Your task to perform on an android device: turn on the 24-hour format for clock Image 0: 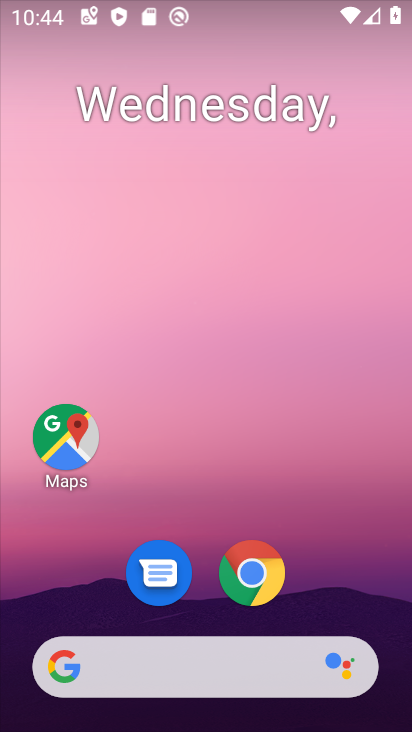
Step 0: drag from (252, 627) to (206, 297)
Your task to perform on an android device: turn on the 24-hour format for clock Image 1: 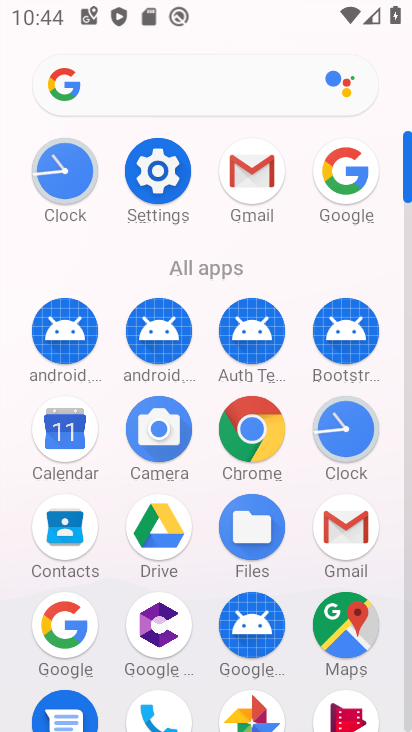
Step 1: click (339, 430)
Your task to perform on an android device: turn on the 24-hour format for clock Image 2: 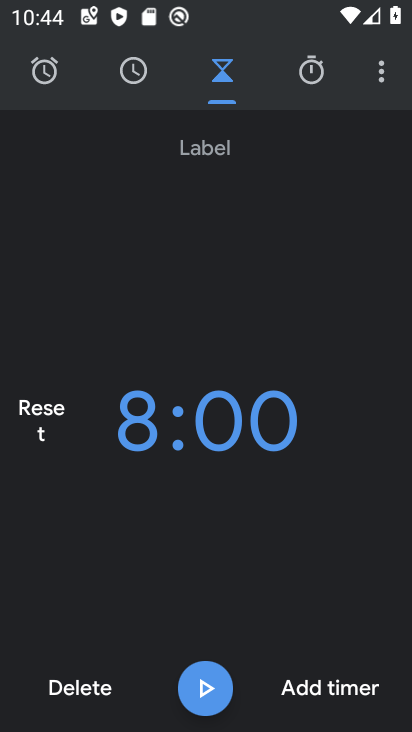
Step 2: click (390, 67)
Your task to perform on an android device: turn on the 24-hour format for clock Image 3: 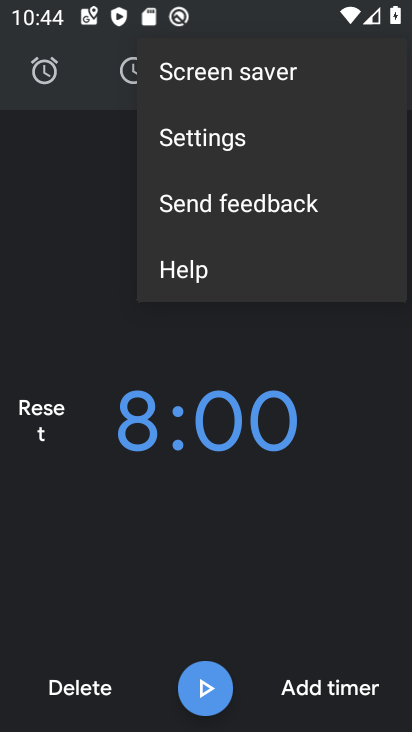
Step 3: click (204, 135)
Your task to perform on an android device: turn on the 24-hour format for clock Image 4: 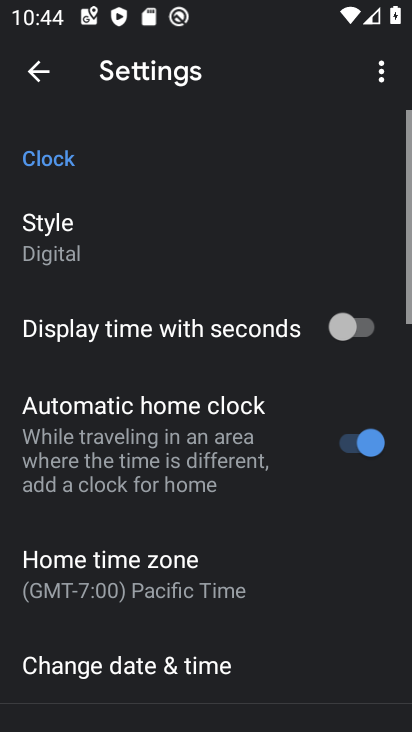
Step 4: drag from (230, 643) to (192, 282)
Your task to perform on an android device: turn on the 24-hour format for clock Image 5: 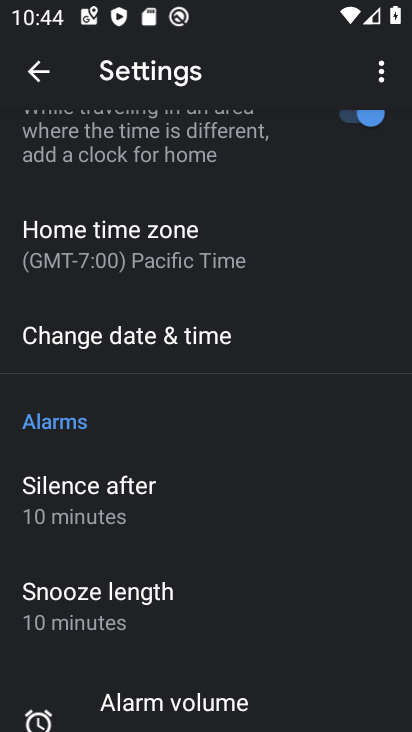
Step 5: drag from (235, 685) to (240, 348)
Your task to perform on an android device: turn on the 24-hour format for clock Image 6: 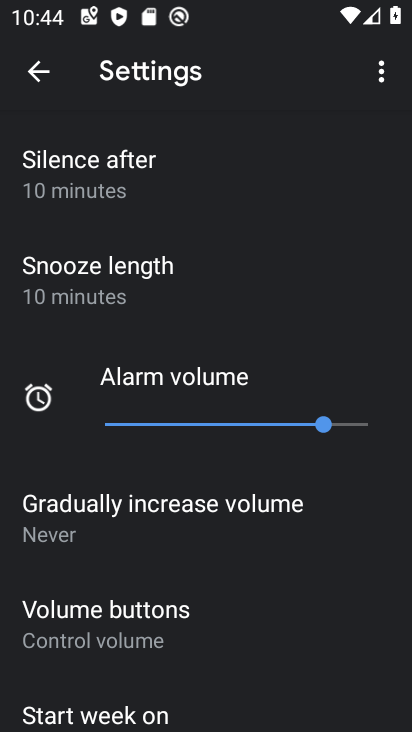
Step 6: drag from (210, 695) to (210, 297)
Your task to perform on an android device: turn on the 24-hour format for clock Image 7: 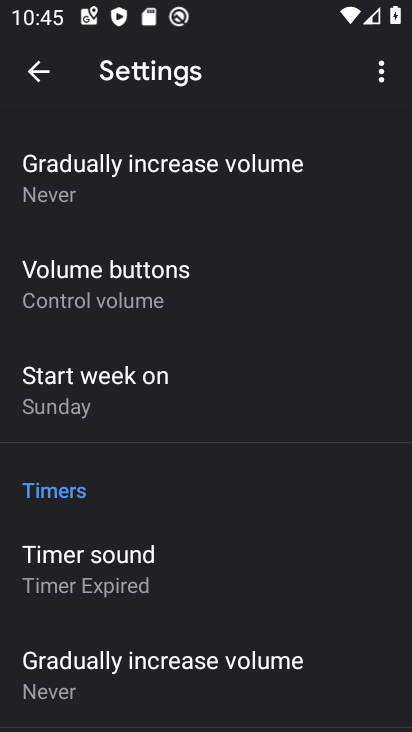
Step 7: drag from (199, 685) to (206, 327)
Your task to perform on an android device: turn on the 24-hour format for clock Image 8: 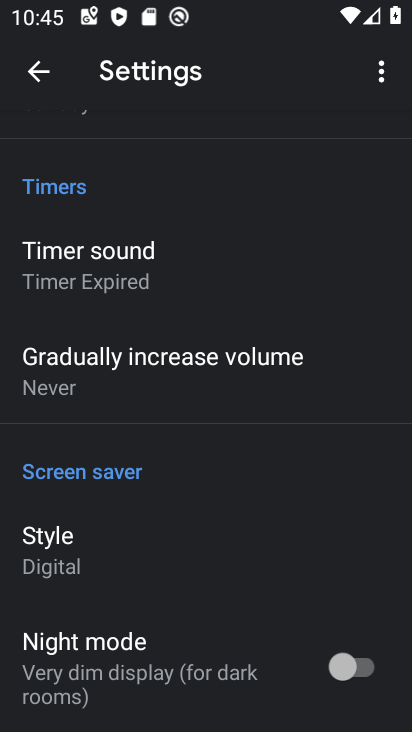
Step 8: drag from (215, 702) to (213, 362)
Your task to perform on an android device: turn on the 24-hour format for clock Image 9: 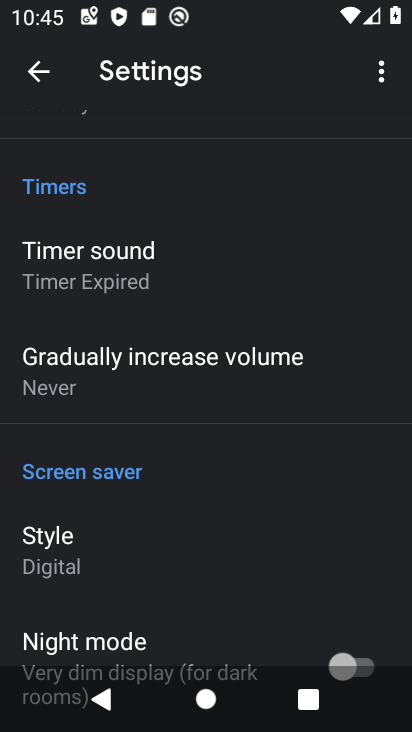
Step 9: drag from (210, 613) to (210, 314)
Your task to perform on an android device: turn on the 24-hour format for clock Image 10: 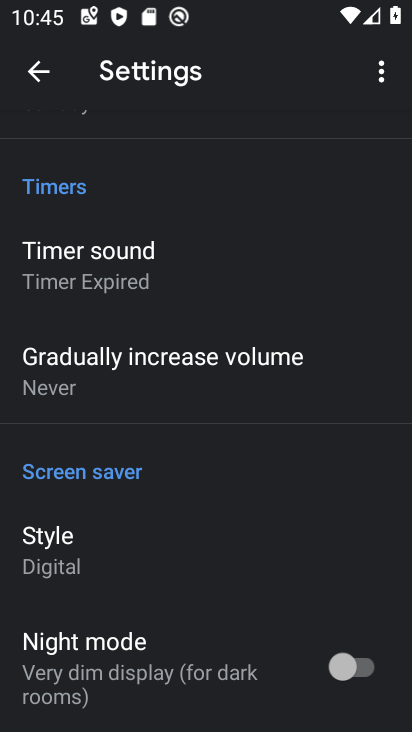
Step 10: drag from (210, 291) to (223, 578)
Your task to perform on an android device: turn on the 24-hour format for clock Image 11: 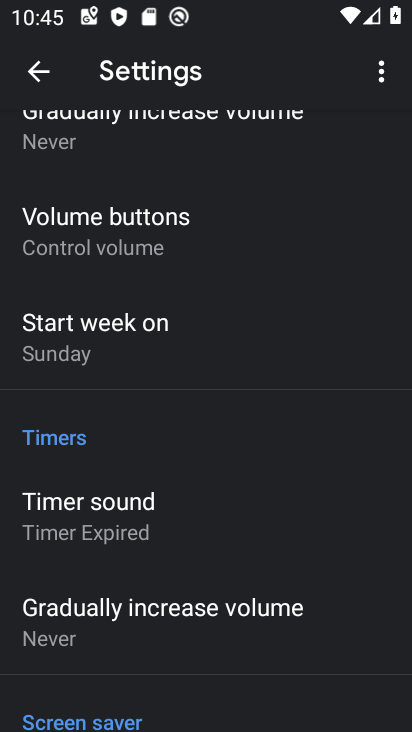
Step 11: drag from (234, 328) to (214, 605)
Your task to perform on an android device: turn on the 24-hour format for clock Image 12: 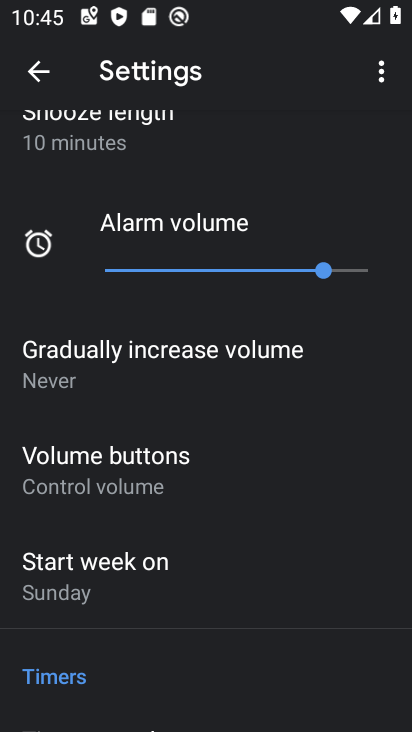
Step 12: drag from (237, 272) to (221, 560)
Your task to perform on an android device: turn on the 24-hour format for clock Image 13: 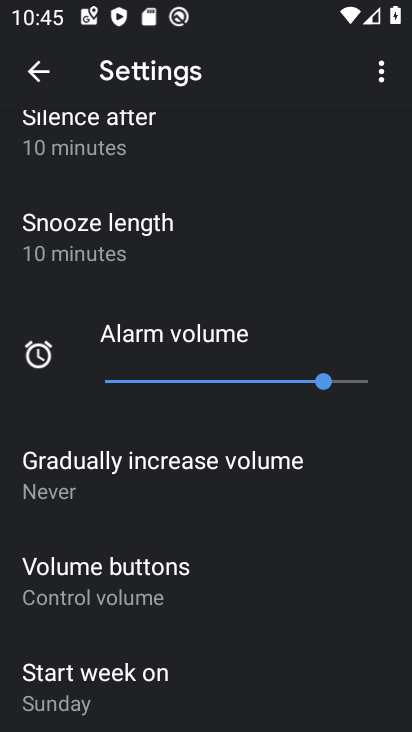
Step 13: drag from (148, 214) to (170, 527)
Your task to perform on an android device: turn on the 24-hour format for clock Image 14: 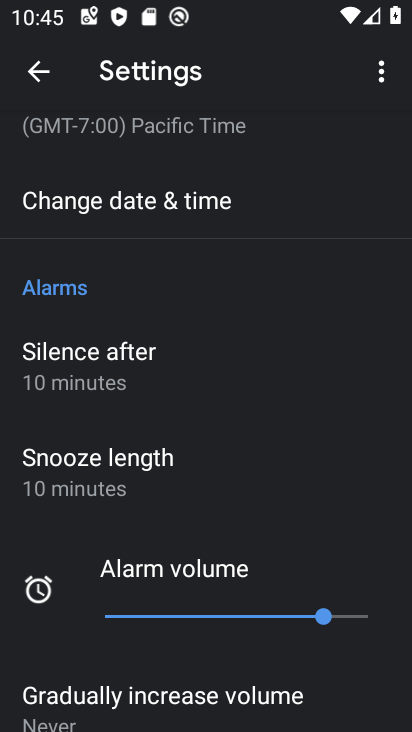
Step 14: click (200, 208)
Your task to perform on an android device: turn on the 24-hour format for clock Image 15: 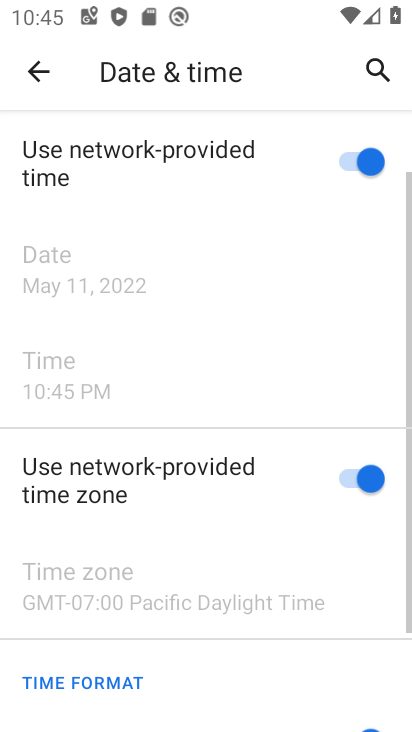
Step 15: drag from (278, 556) to (258, 298)
Your task to perform on an android device: turn on the 24-hour format for clock Image 16: 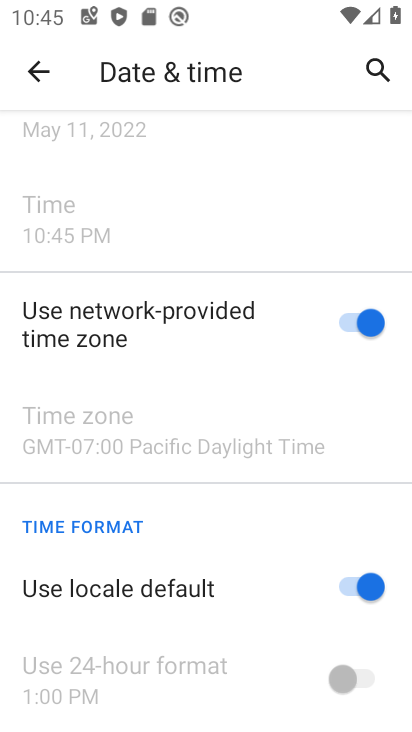
Step 16: click (360, 671)
Your task to perform on an android device: turn on the 24-hour format for clock Image 17: 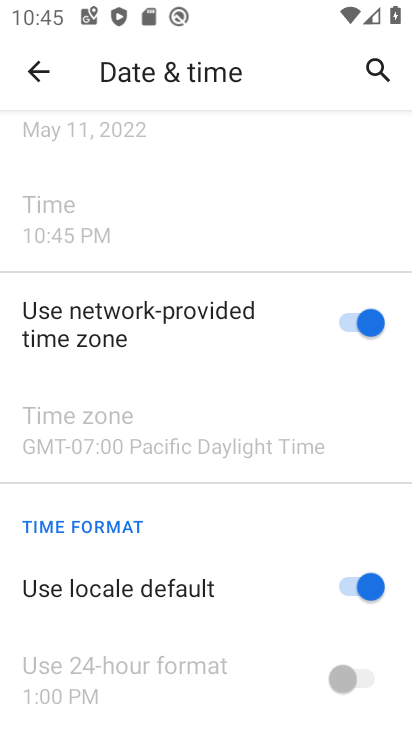
Step 17: click (349, 585)
Your task to perform on an android device: turn on the 24-hour format for clock Image 18: 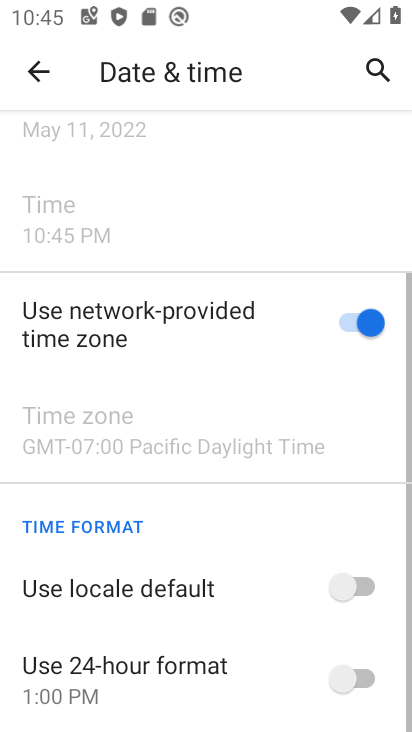
Step 18: click (368, 674)
Your task to perform on an android device: turn on the 24-hour format for clock Image 19: 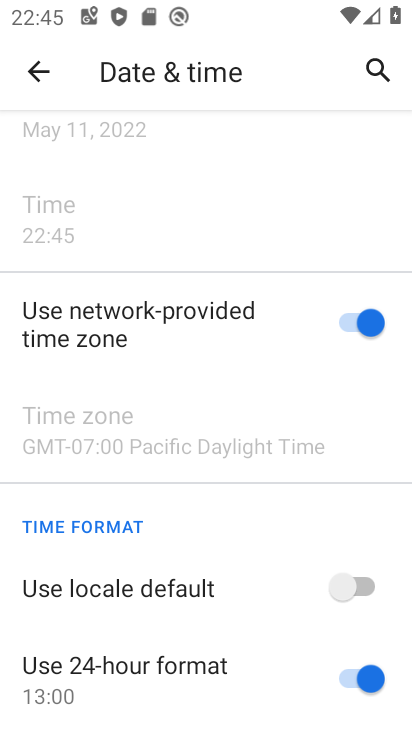
Step 19: task complete